Your task to perform on an android device: set the stopwatch Image 0: 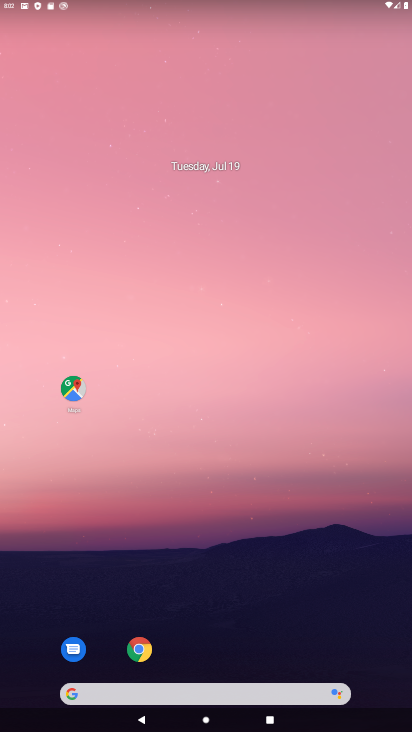
Step 0: drag from (278, 690) to (291, 262)
Your task to perform on an android device: set the stopwatch Image 1: 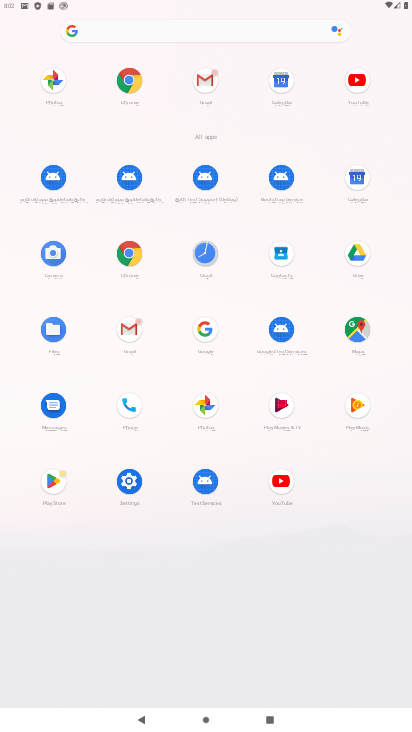
Step 1: click (213, 252)
Your task to perform on an android device: set the stopwatch Image 2: 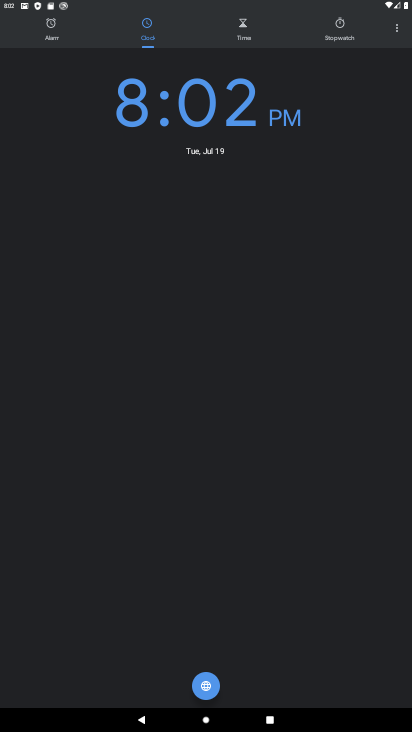
Step 2: click (333, 32)
Your task to perform on an android device: set the stopwatch Image 3: 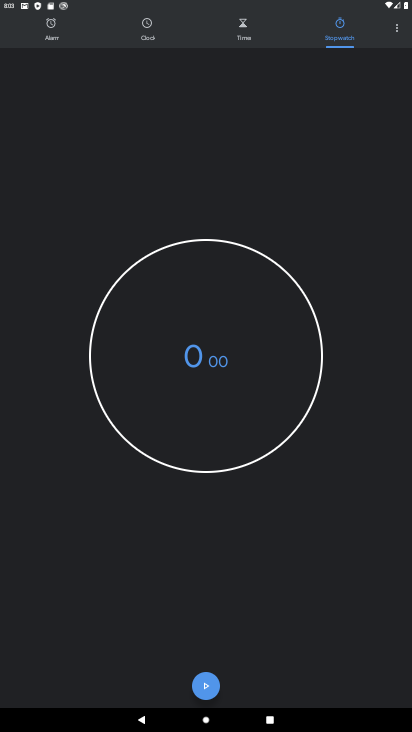
Step 3: click (203, 689)
Your task to perform on an android device: set the stopwatch Image 4: 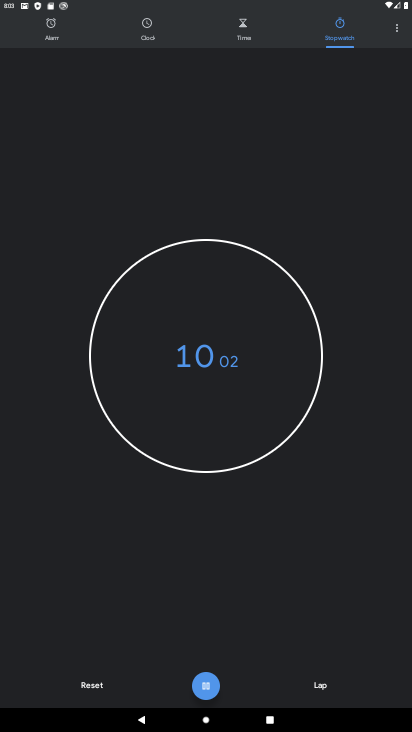
Step 4: task complete